Your task to perform on an android device: open app "LiveIn - Share Your Moment" Image 0: 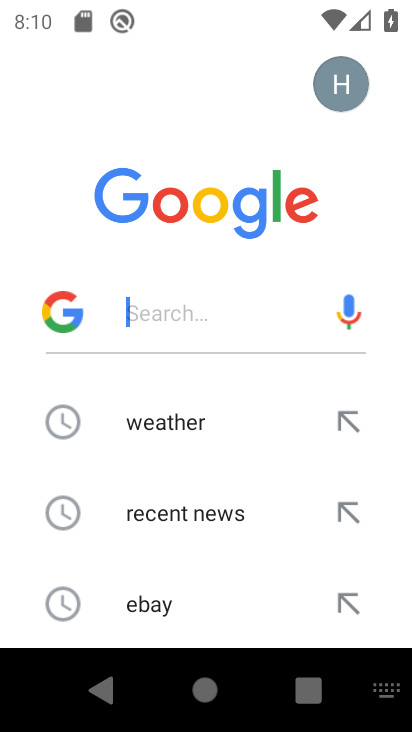
Step 0: press back button
Your task to perform on an android device: open app "LiveIn - Share Your Moment" Image 1: 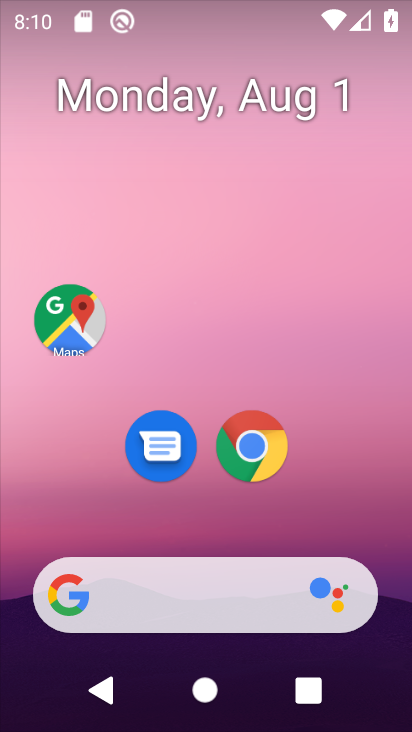
Step 1: drag from (202, 533) to (207, 89)
Your task to perform on an android device: open app "LiveIn - Share Your Moment" Image 2: 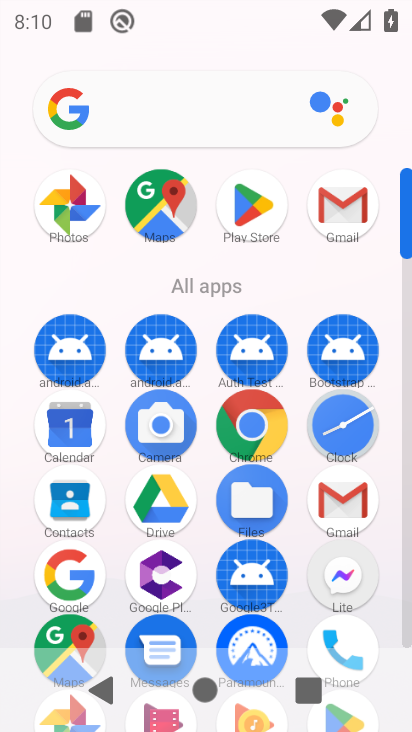
Step 2: click (235, 196)
Your task to perform on an android device: open app "LiveIn - Share Your Moment" Image 3: 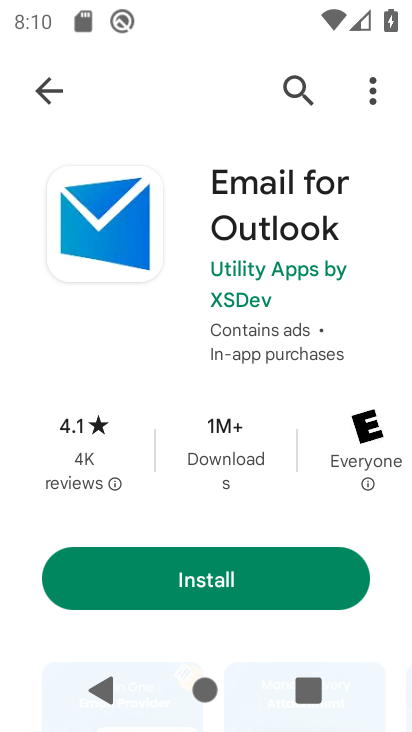
Step 3: click (296, 86)
Your task to perform on an android device: open app "LiveIn - Share Your Moment" Image 4: 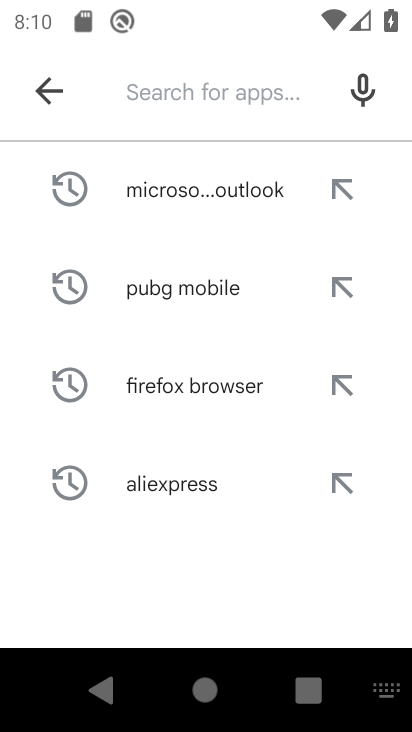
Step 4: type "LiveIn - Share Your Momen"
Your task to perform on an android device: open app "LiveIn - Share Your Moment" Image 5: 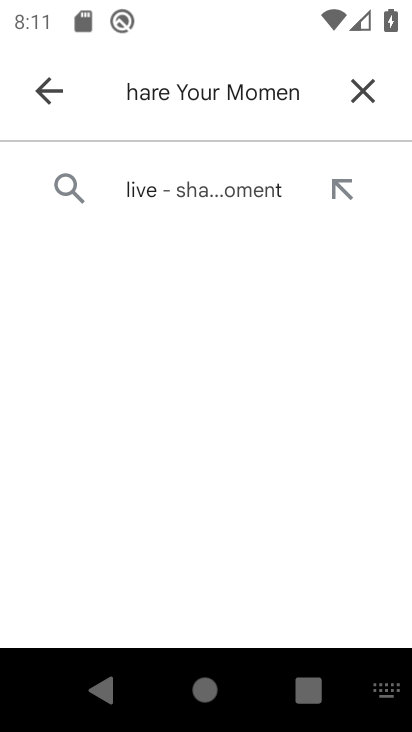
Step 5: click (167, 196)
Your task to perform on an android device: open app "LiveIn - Share Your Moment" Image 6: 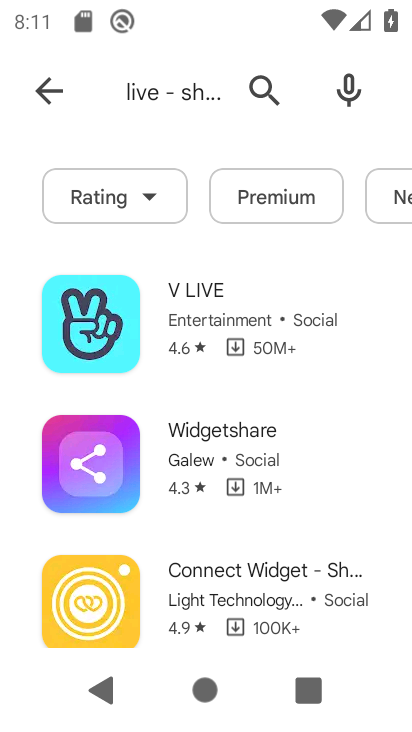
Step 6: task complete